Your task to perform on an android device: all mails in gmail Image 0: 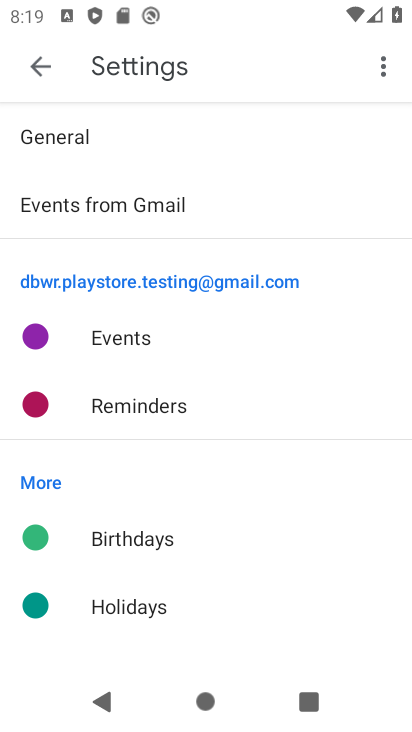
Step 0: press home button
Your task to perform on an android device: all mails in gmail Image 1: 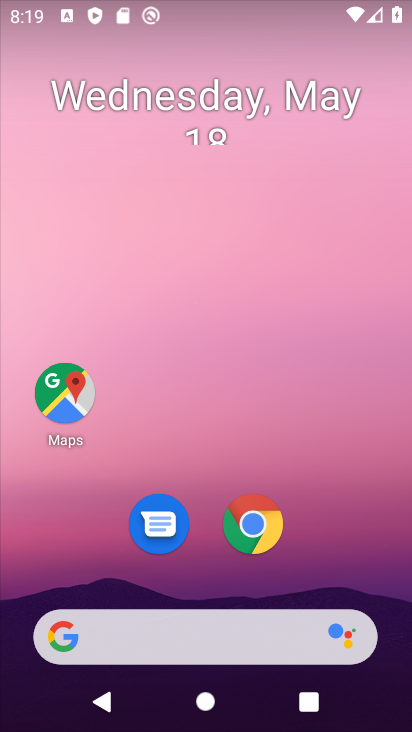
Step 1: drag from (319, 511) to (280, 40)
Your task to perform on an android device: all mails in gmail Image 2: 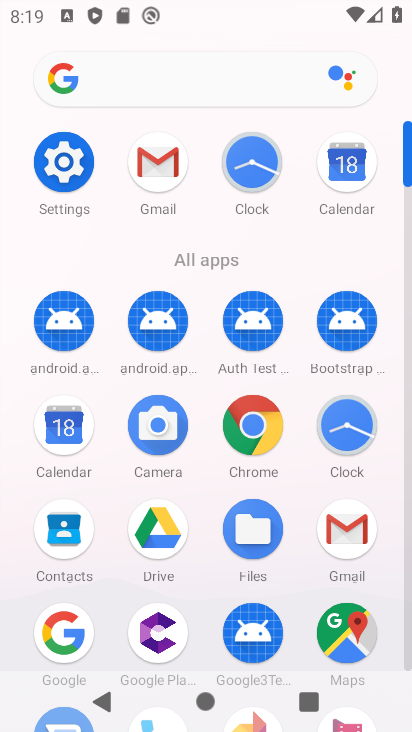
Step 2: click (161, 161)
Your task to perform on an android device: all mails in gmail Image 3: 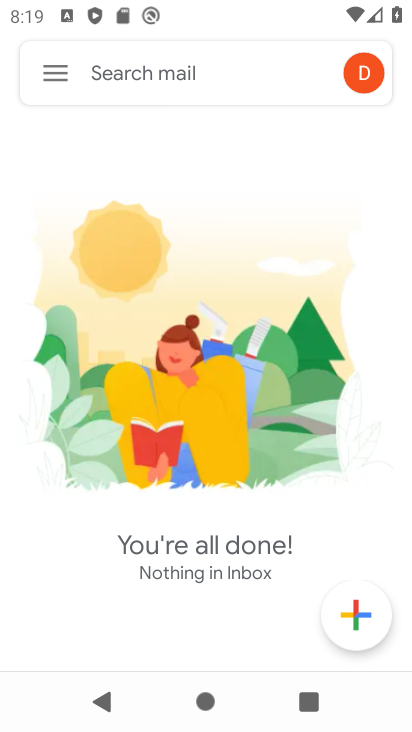
Step 3: click (56, 69)
Your task to perform on an android device: all mails in gmail Image 4: 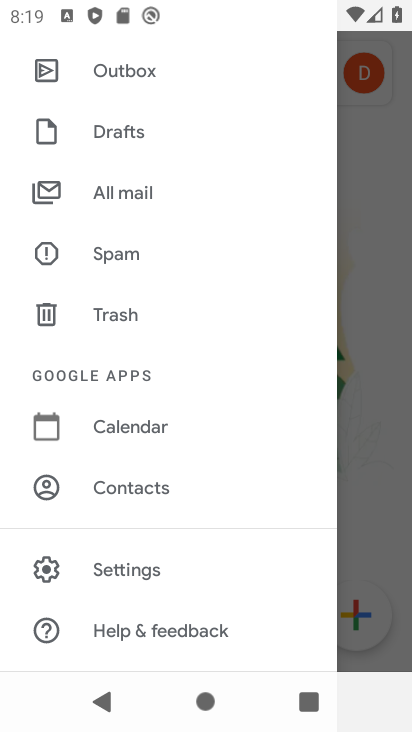
Step 4: click (151, 189)
Your task to perform on an android device: all mails in gmail Image 5: 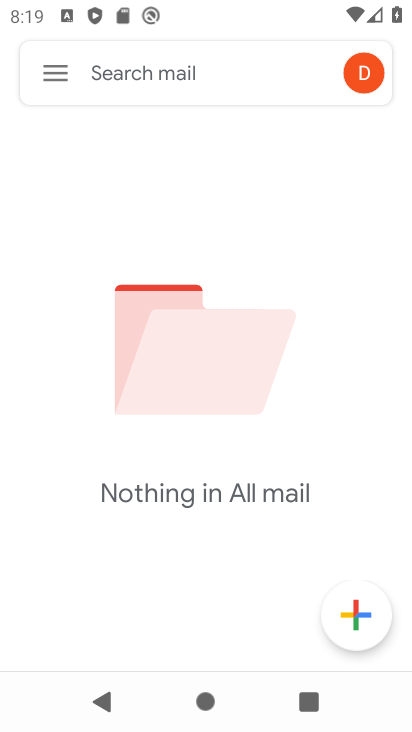
Step 5: task complete